Your task to perform on an android device: Search for the best websites on the internet Image 0: 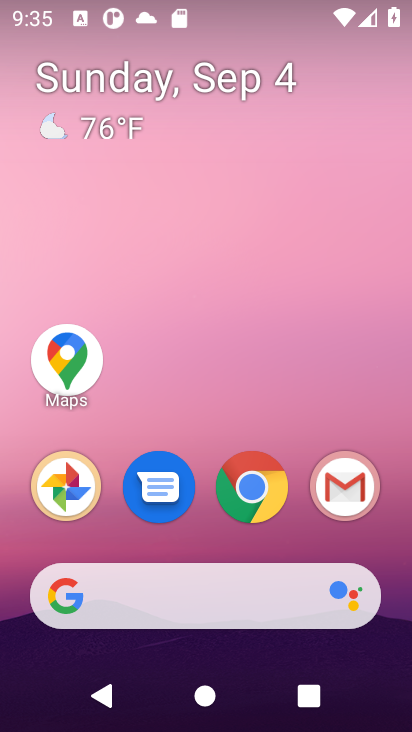
Step 0: drag from (333, 723) to (301, 712)
Your task to perform on an android device: Search for the best websites on the internet Image 1: 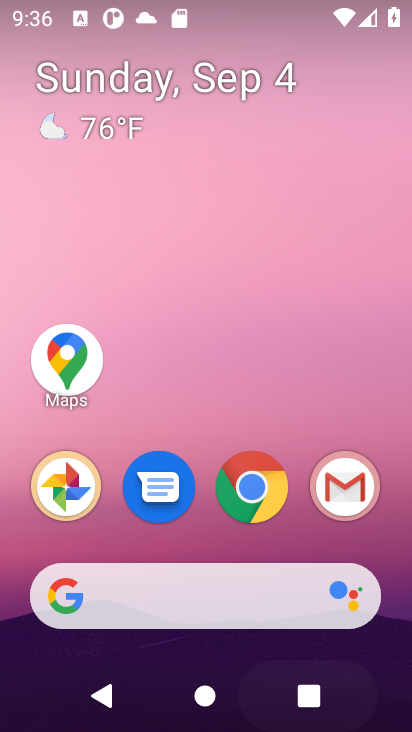
Step 1: click (147, 607)
Your task to perform on an android device: Search for the best websites on the internet Image 2: 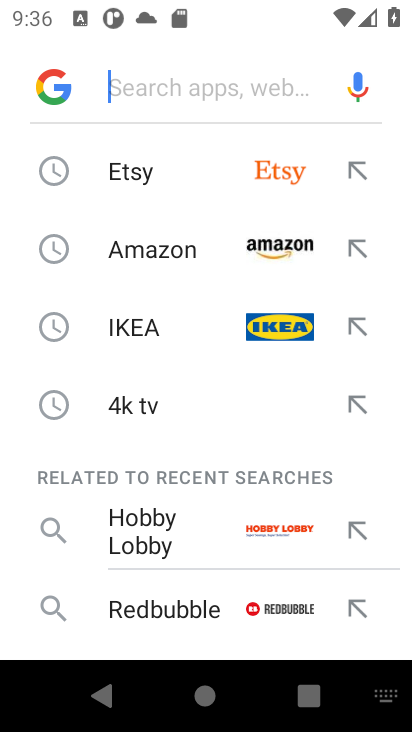
Step 2: type "best websites on the internet"
Your task to perform on an android device: Search for the best websites on the internet Image 3: 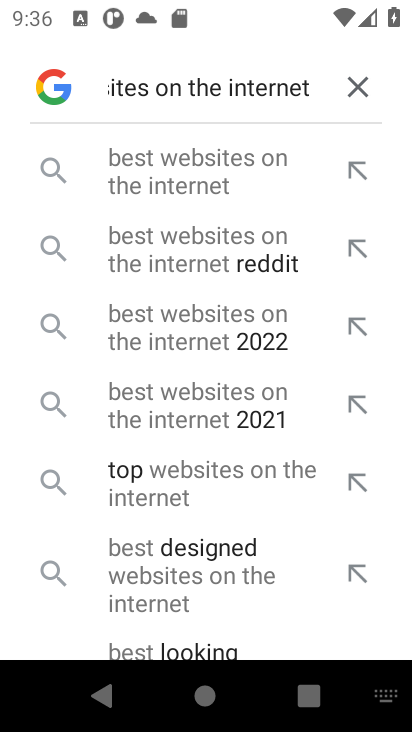
Step 3: click (250, 174)
Your task to perform on an android device: Search for the best websites on the internet Image 4: 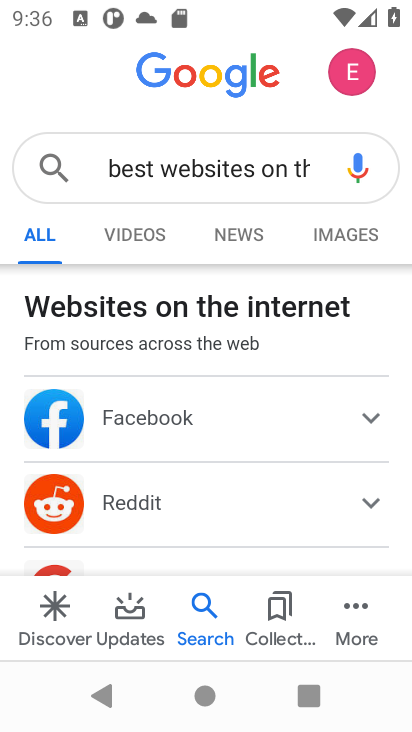
Step 4: task complete